Your task to perform on an android device: change keyboard looks Image 0: 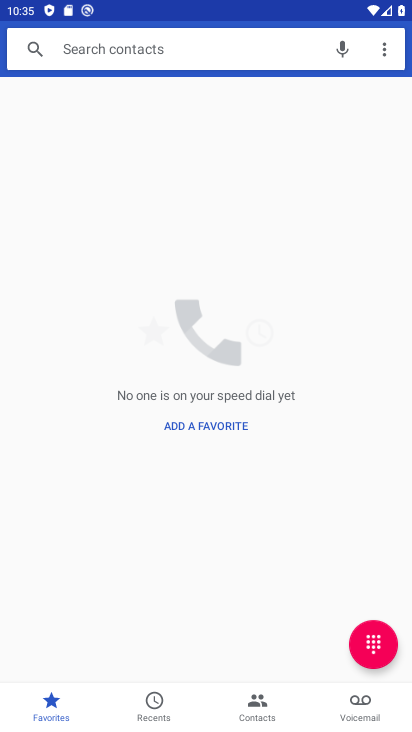
Step 0: press home button
Your task to perform on an android device: change keyboard looks Image 1: 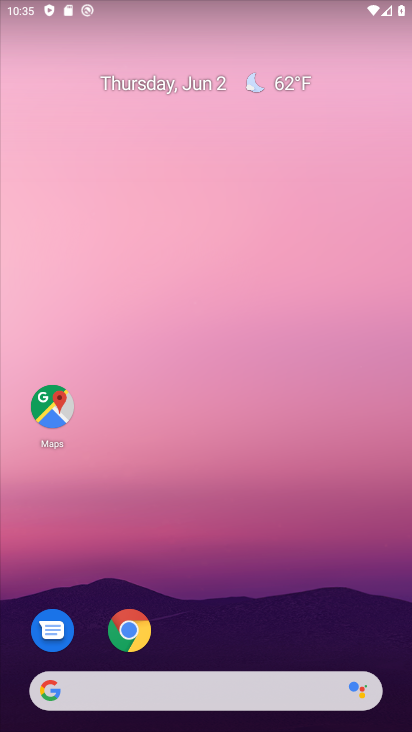
Step 1: drag from (181, 691) to (302, 130)
Your task to perform on an android device: change keyboard looks Image 2: 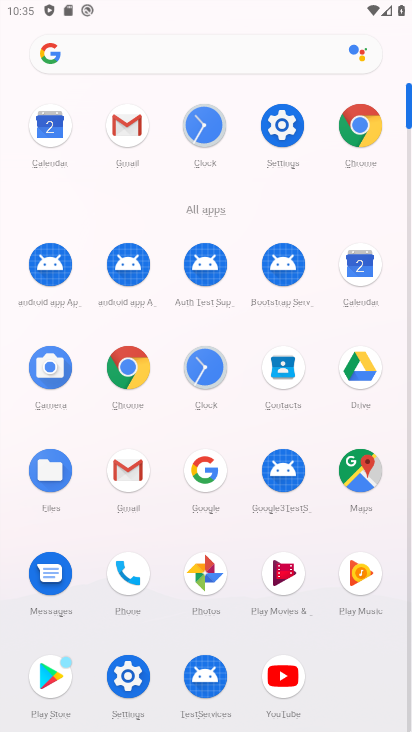
Step 2: click (275, 136)
Your task to perform on an android device: change keyboard looks Image 3: 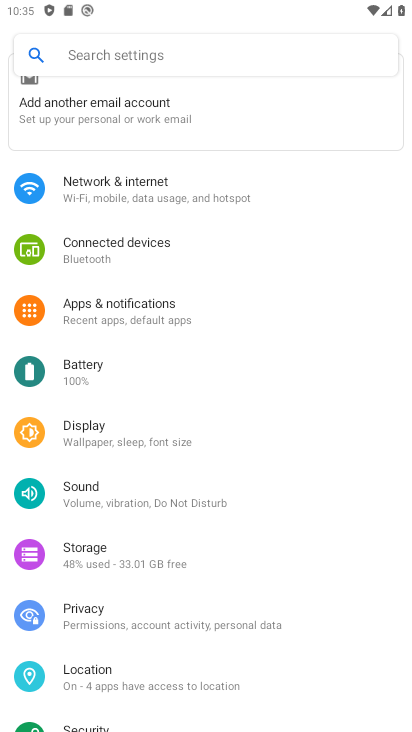
Step 3: drag from (237, 656) to (320, 135)
Your task to perform on an android device: change keyboard looks Image 4: 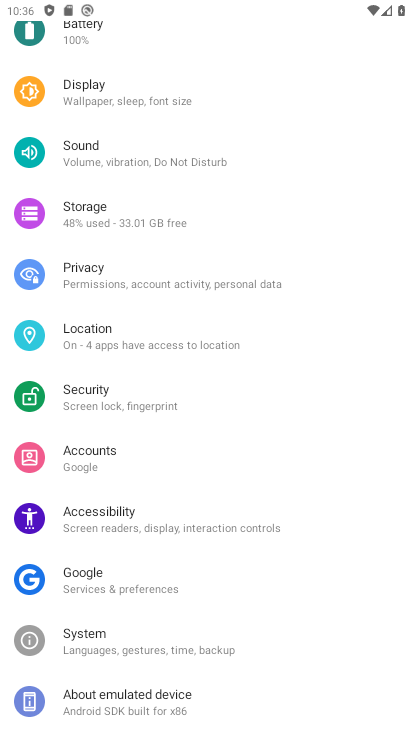
Step 4: click (160, 639)
Your task to perform on an android device: change keyboard looks Image 5: 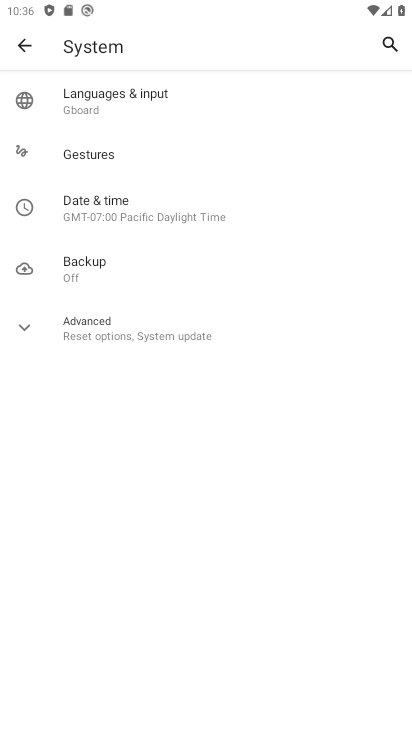
Step 5: click (139, 103)
Your task to perform on an android device: change keyboard looks Image 6: 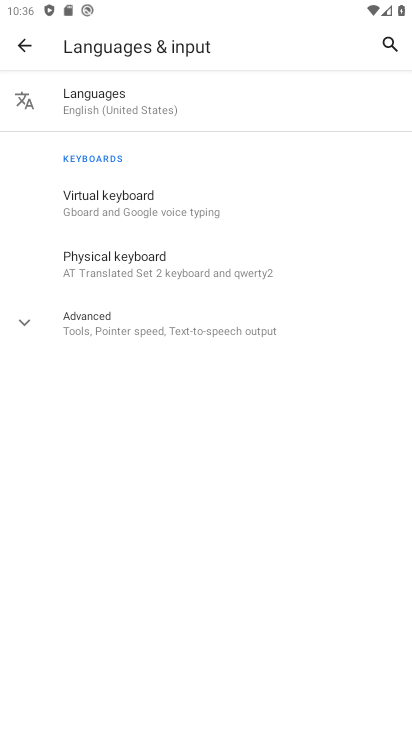
Step 6: click (128, 203)
Your task to perform on an android device: change keyboard looks Image 7: 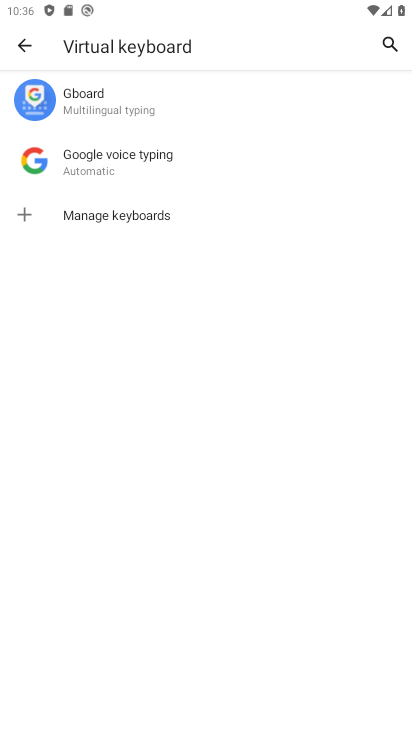
Step 7: click (89, 101)
Your task to perform on an android device: change keyboard looks Image 8: 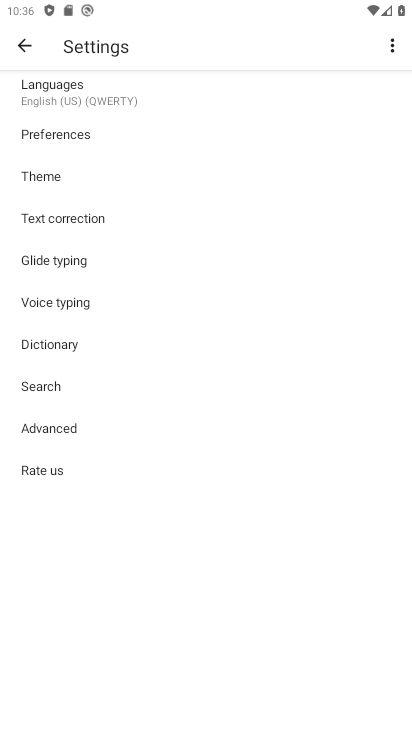
Step 8: click (46, 169)
Your task to perform on an android device: change keyboard looks Image 9: 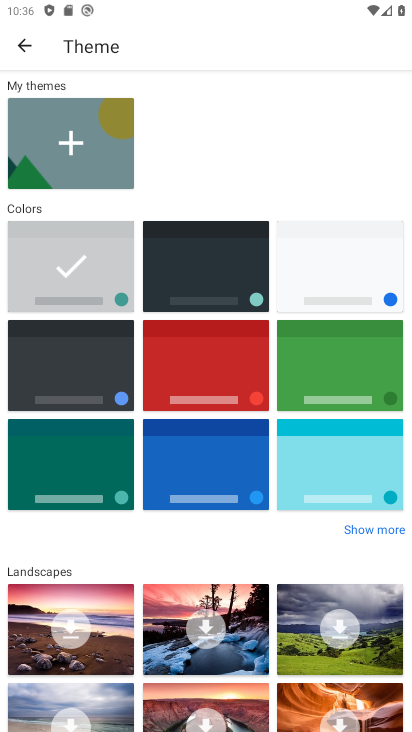
Step 9: click (218, 359)
Your task to perform on an android device: change keyboard looks Image 10: 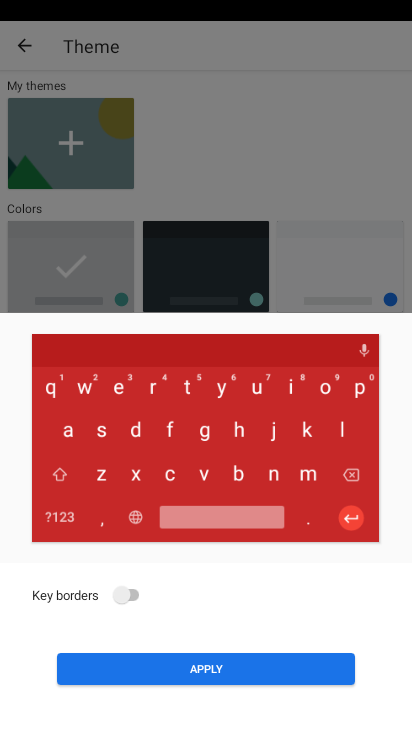
Step 10: click (210, 664)
Your task to perform on an android device: change keyboard looks Image 11: 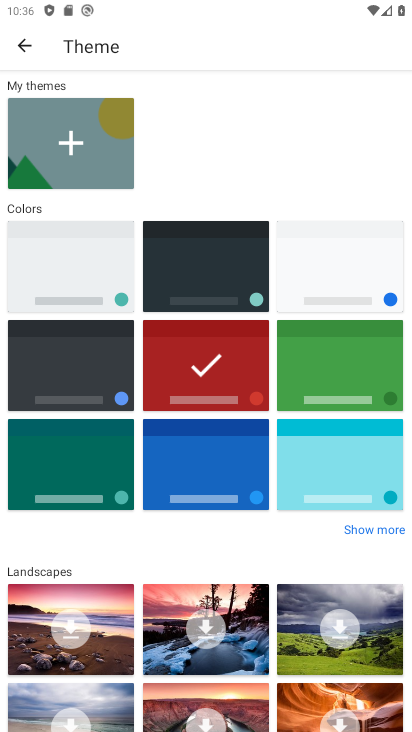
Step 11: task complete